Your task to perform on an android device: toggle sleep mode Image 0: 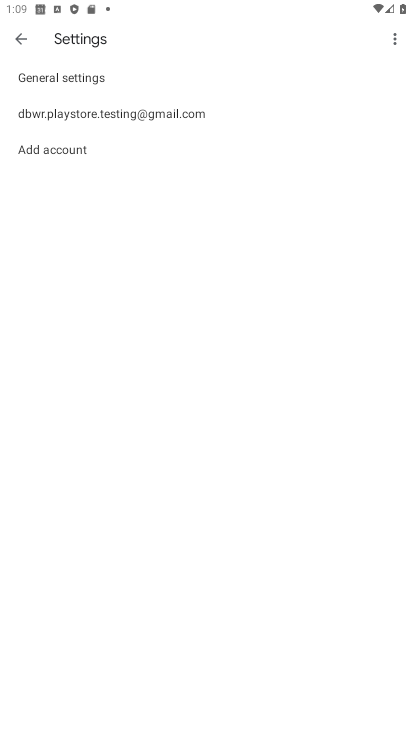
Step 0: press home button
Your task to perform on an android device: toggle sleep mode Image 1: 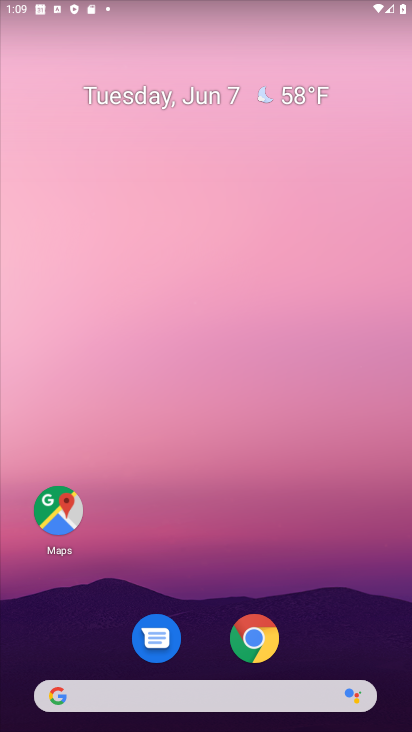
Step 1: drag from (205, 619) to (251, 55)
Your task to perform on an android device: toggle sleep mode Image 2: 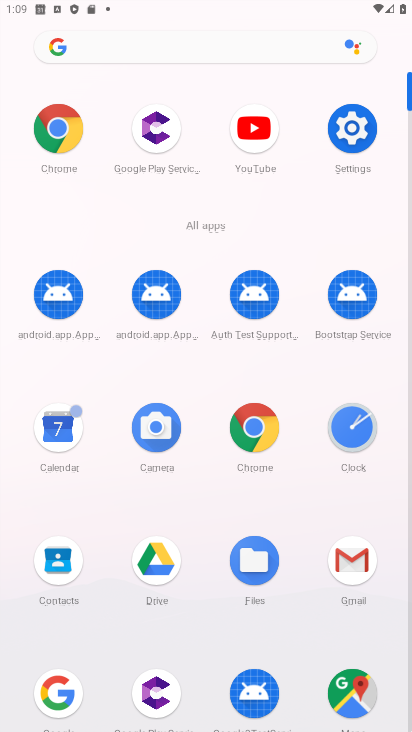
Step 2: click (356, 126)
Your task to perform on an android device: toggle sleep mode Image 3: 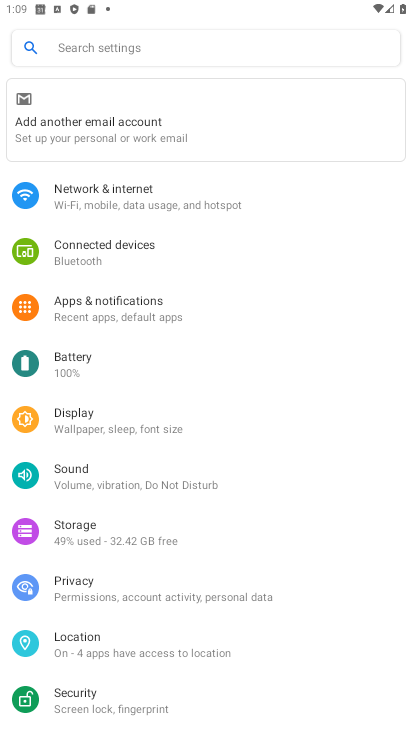
Step 3: click (193, 431)
Your task to perform on an android device: toggle sleep mode Image 4: 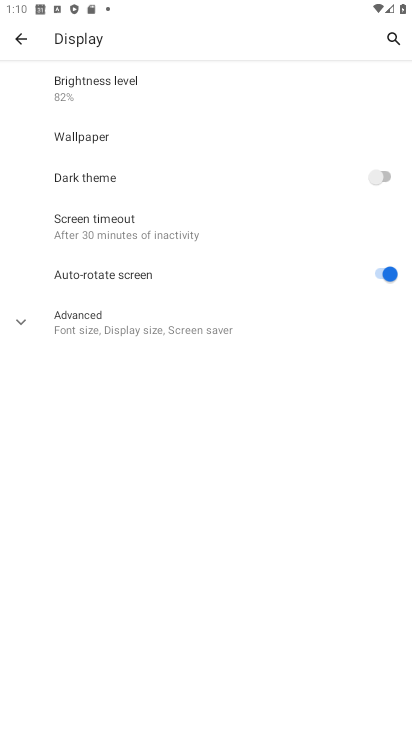
Step 4: task complete